Your task to perform on an android device: Open my contact list Image 0: 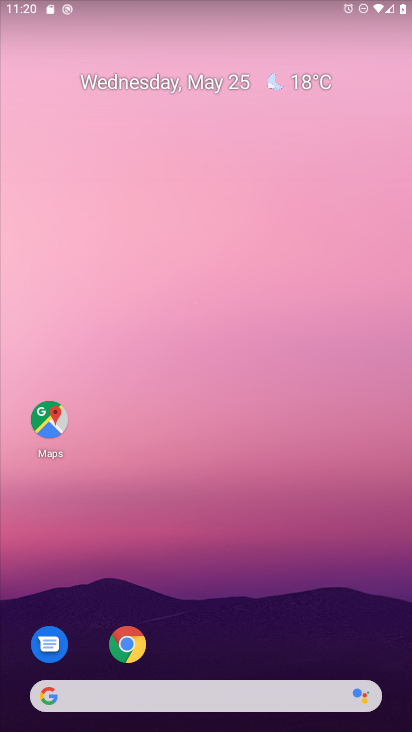
Step 0: drag from (218, 662) to (225, 115)
Your task to perform on an android device: Open my contact list Image 1: 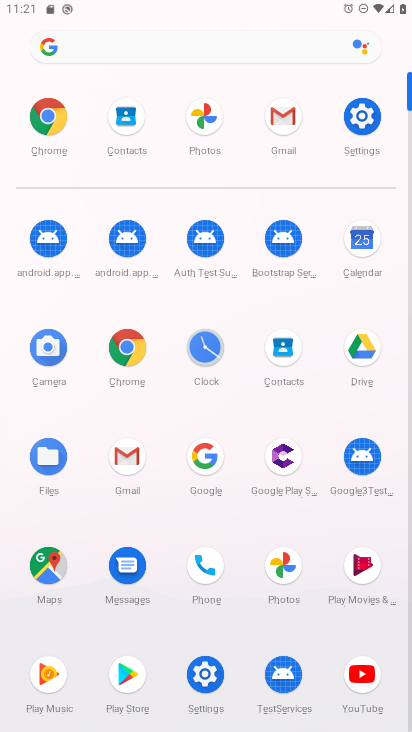
Step 1: click (279, 343)
Your task to perform on an android device: Open my contact list Image 2: 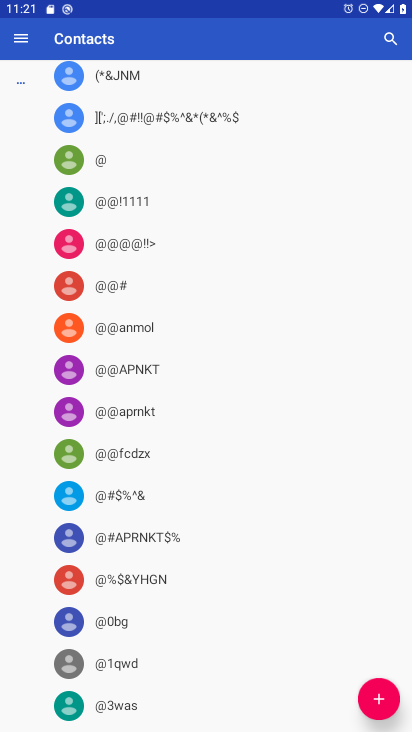
Step 2: click (170, 644)
Your task to perform on an android device: Open my contact list Image 3: 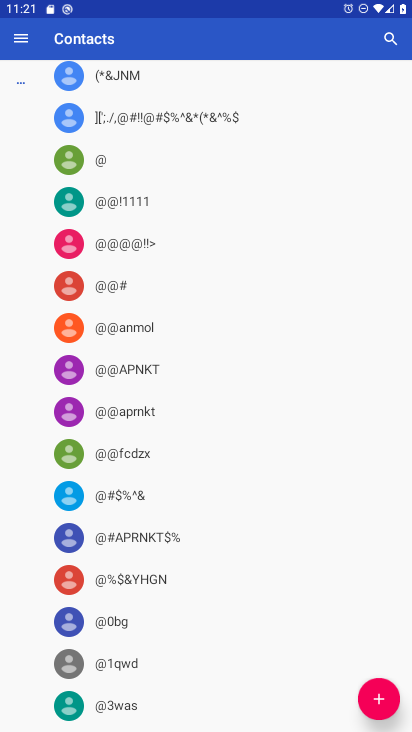
Step 3: drag from (170, 512) to (188, 136)
Your task to perform on an android device: Open my contact list Image 4: 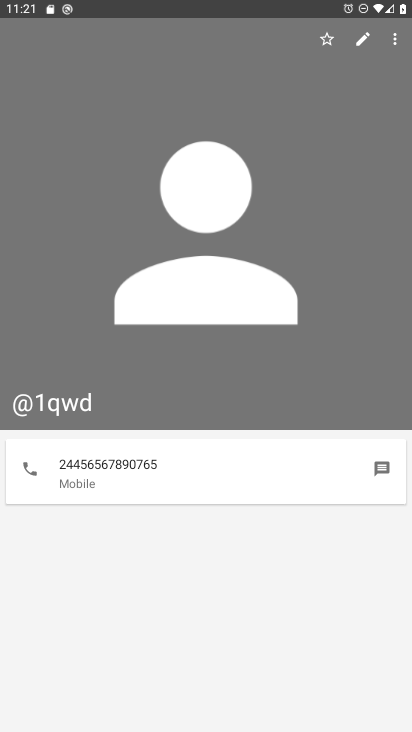
Step 4: press back button
Your task to perform on an android device: Open my contact list Image 5: 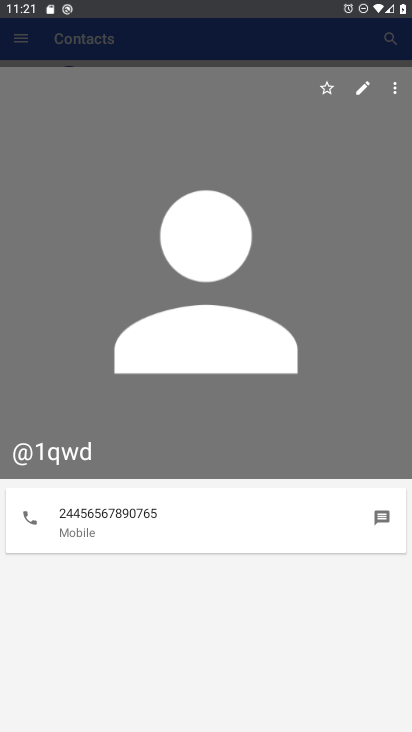
Step 5: press back button
Your task to perform on an android device: Open my contact list Image 6: 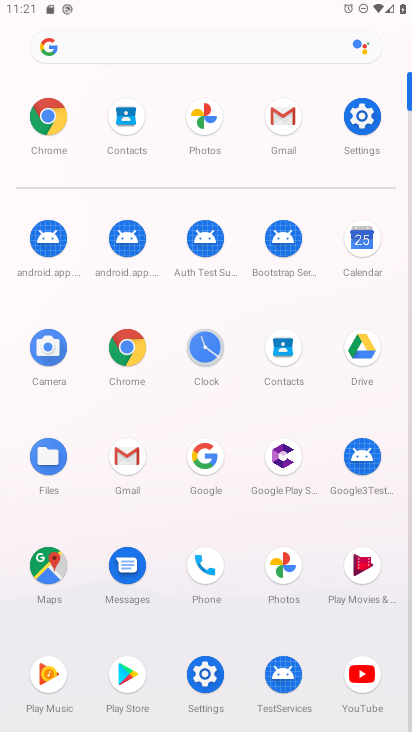
Step 6: click (288, 340)
Your task to perform on an android device: Open my contact list Image 7: 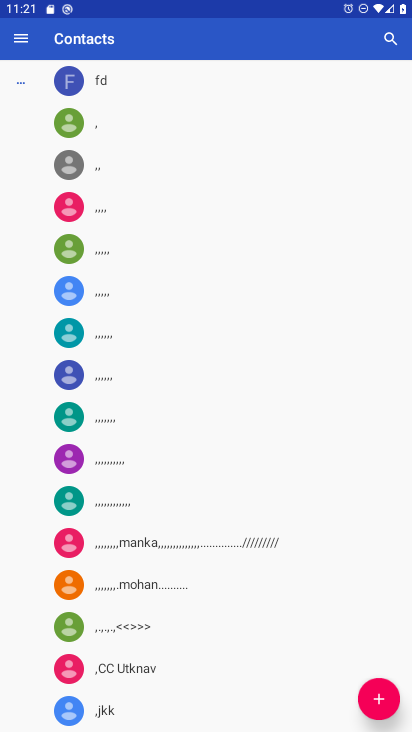
Step 7: task complete